Your task to perform on an android device: Open Youtube and go to "Your channel" Image 0: 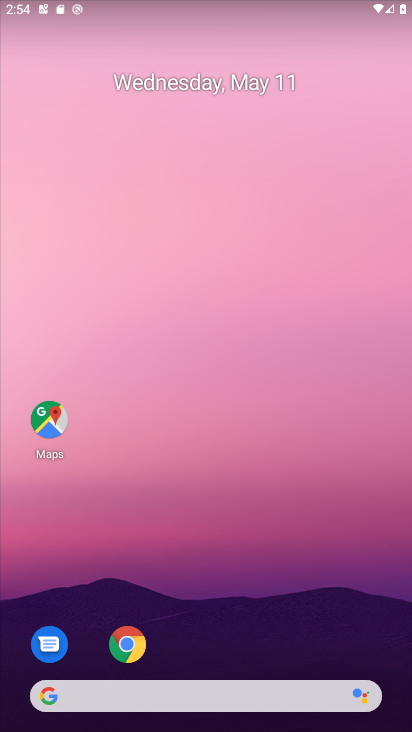
Step 0: drag from (184, 672) to (177, 42)
Your task to perform on an android device: Open Youtube and go to "Your channel" Image 1: 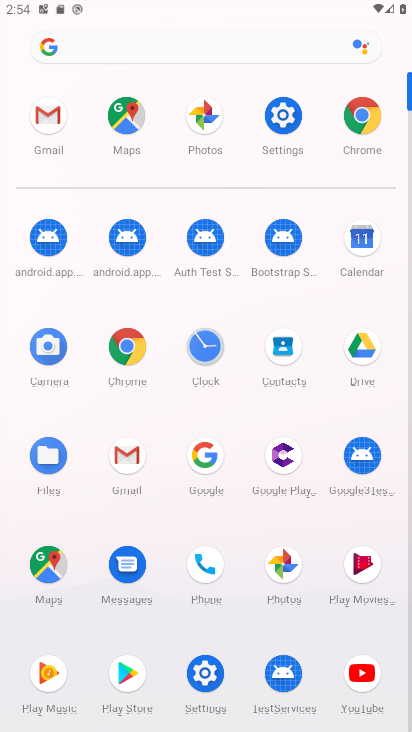
Step 1: click (374, 677)
Your task to perform on an android device: Open Youtube and go to "Your channel" Image 2: 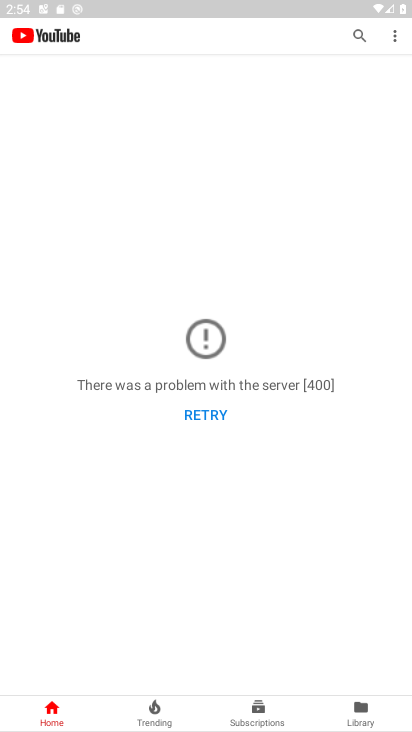
Step 2: click (361, 35)
Your task to perform on an android device: Open Youtube and go to "Your channel" Image 3: 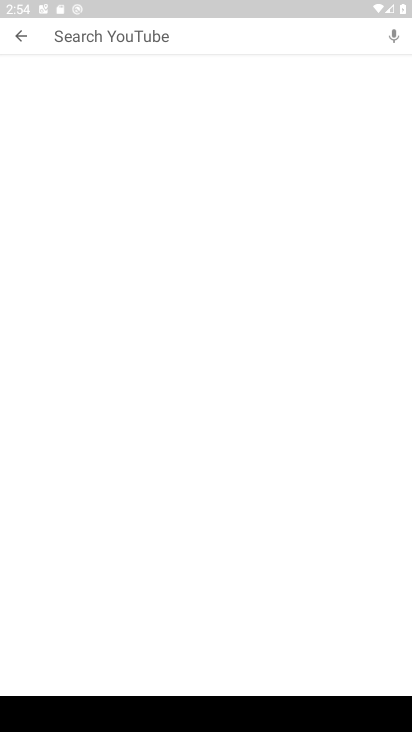
Step 3: click (31, 24)
Your task to perform on an android device: Open Youtube and go to "Your channel" Image 4: 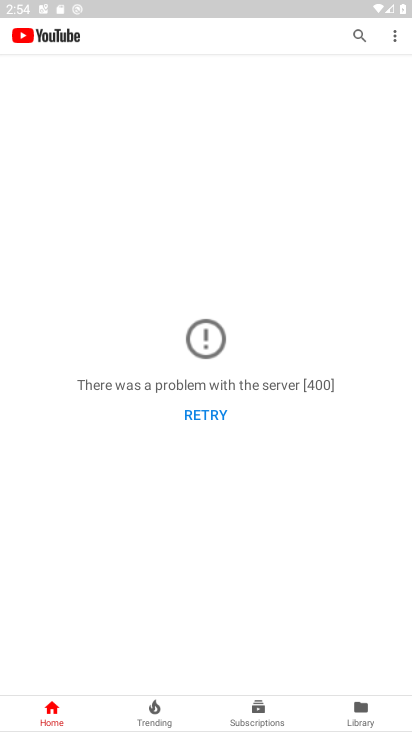
Step 4: click (212, 421)
Your task to perform on an android device: Open Youtube and go to "Your channel" Image 5: 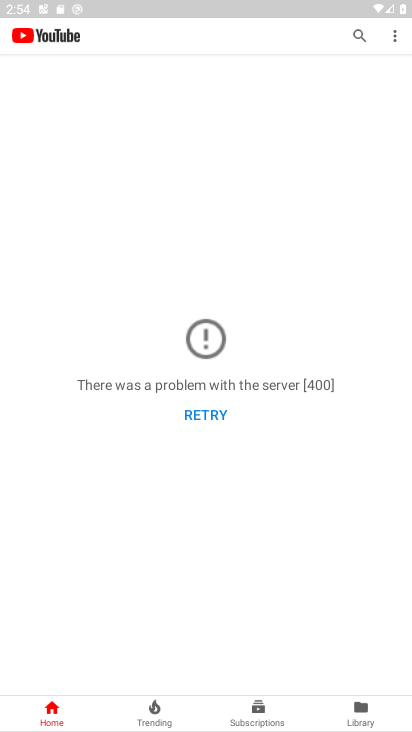
Step 5: click (212, 413)
Your task to perform on an android device: Open Youtube and go to "Your channel" Image 6: 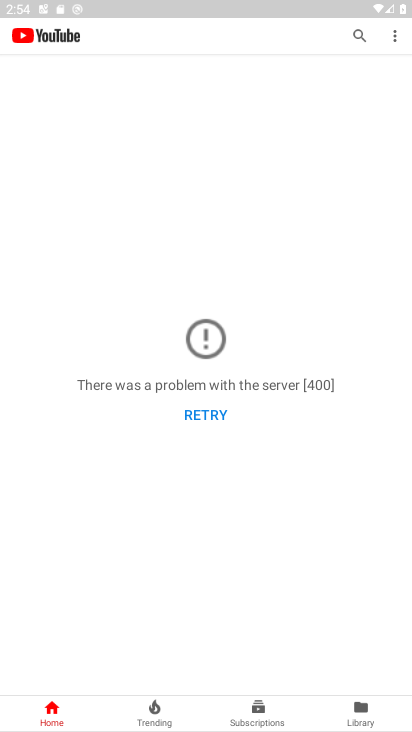
Step 6: click (212, 412)
Your task to perform on an android device: Open Youtube and go to "Your channel" Image 7: 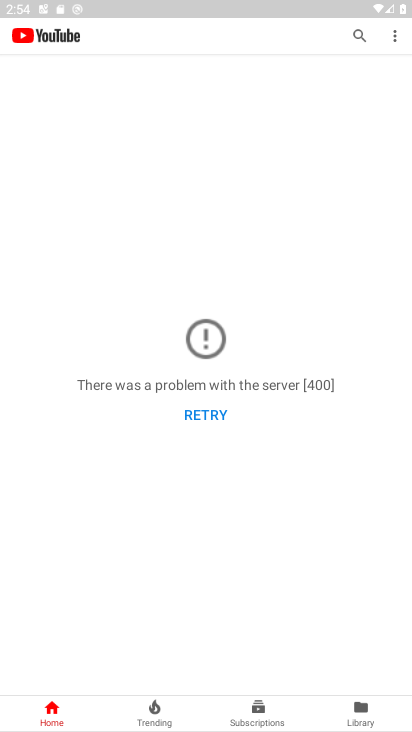
Step 7: click (211, 411)
Your task to perform on an android device: Open Youtube and go to "Your channel" Image 8: 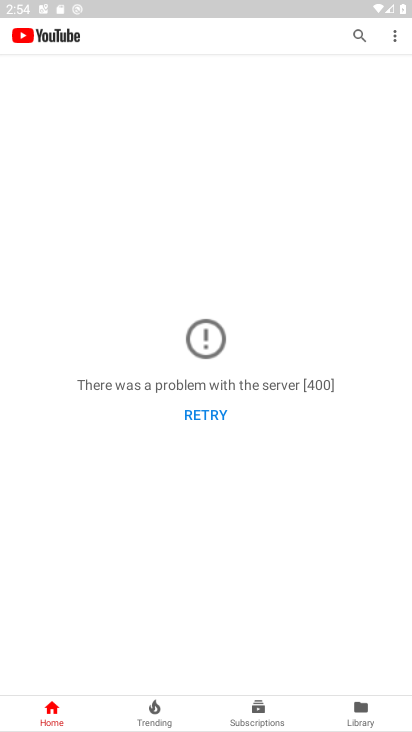
Step 8: click (210, 410)
Your task to perform on an android device: Open Youtube and go to "Your channel" Image 9: 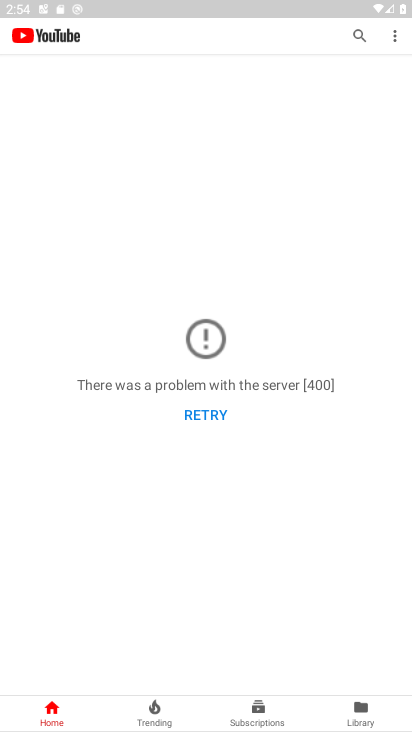
Step 9: click (210, 410)
Your task to perform on an android device: Open Youtube and go to "Your channel" Image 10: 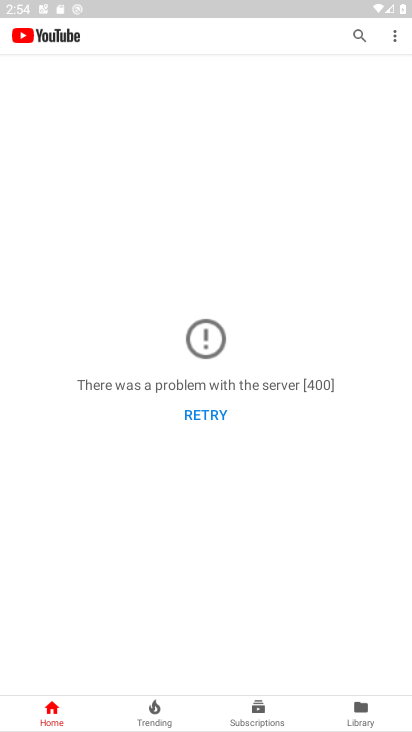
Step 10: click (210, 410)
Your task to perform on an android device: Open Youtube and go to "Your channel" Image 11: 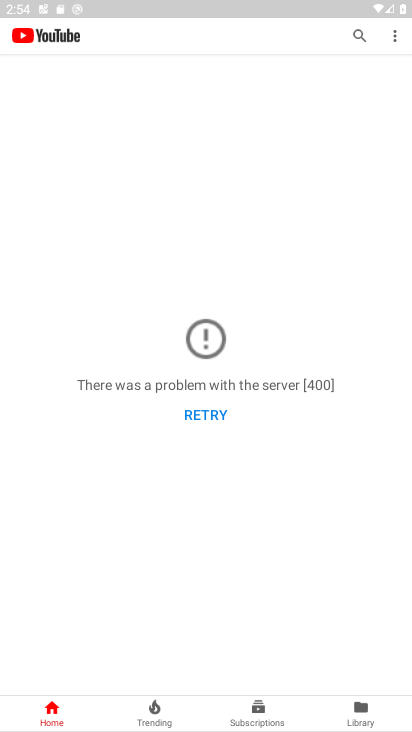
Step 11: click (210, 410)
Your task to perform on an android device: Open Youtube and go to "Your channel" Image 12: 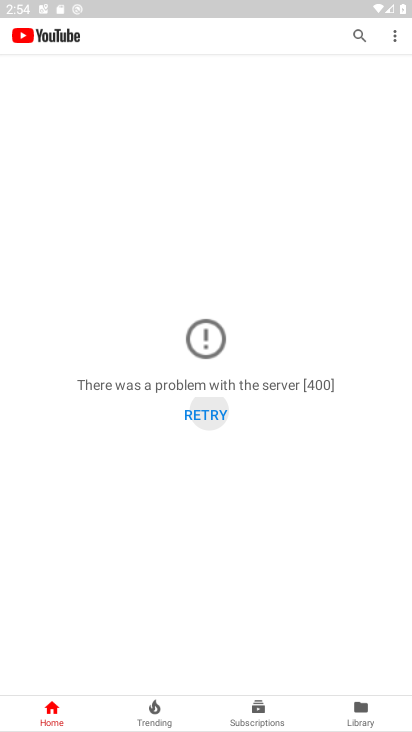
Step 12: click (210, 410)
Your task to perform on an android device: Open Youtube and go to "Your channel" Image 13: 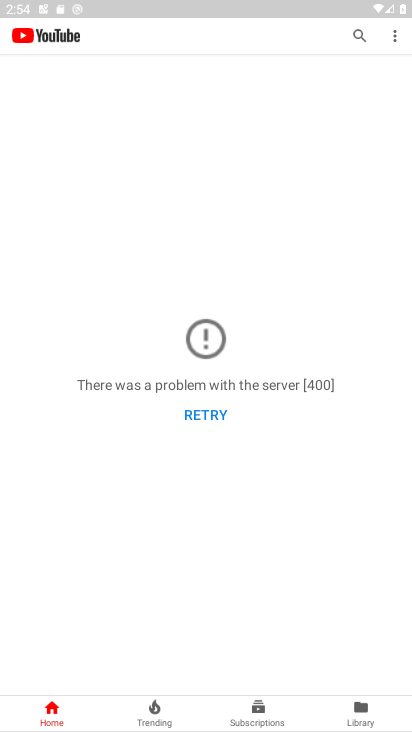
Step 13: task complete